Your task to perform on an android device: turn off improve location accuracy Image 0: 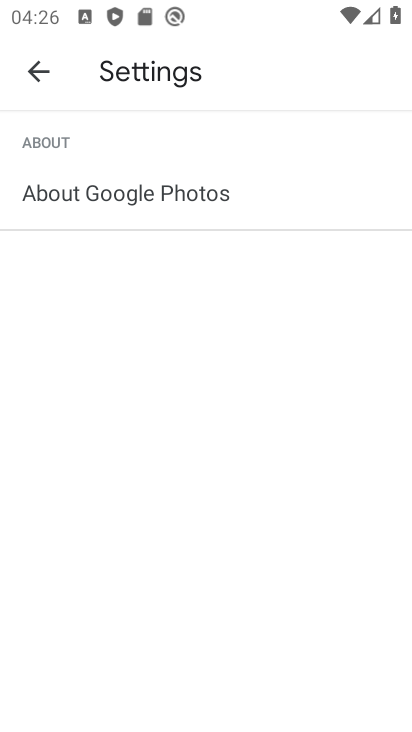
Step 0: press home button
Your task to perform on an android device: turn off improve location accuracy Image 1: 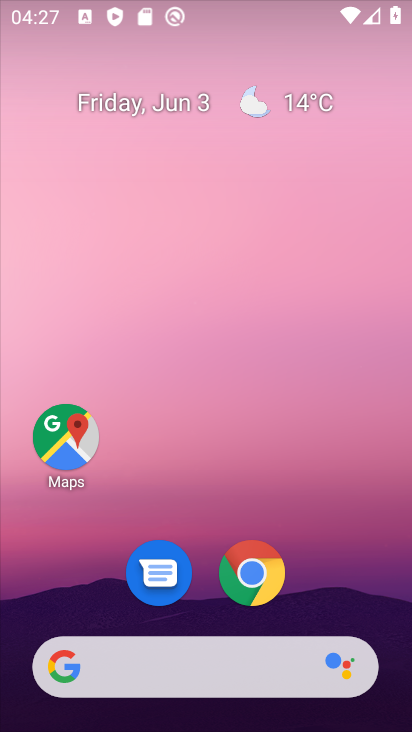
Step 1: drag from (155, 703) to (205, 104)
Your task to perform on an android device: turn off improve location accuracy Image 2: 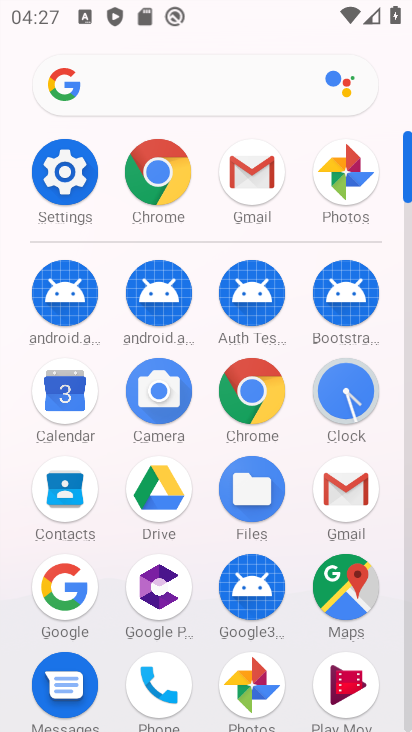
Step 2: click (62, 177)
Your task to perform on an android device: turn off improve location accuracy Image 3: 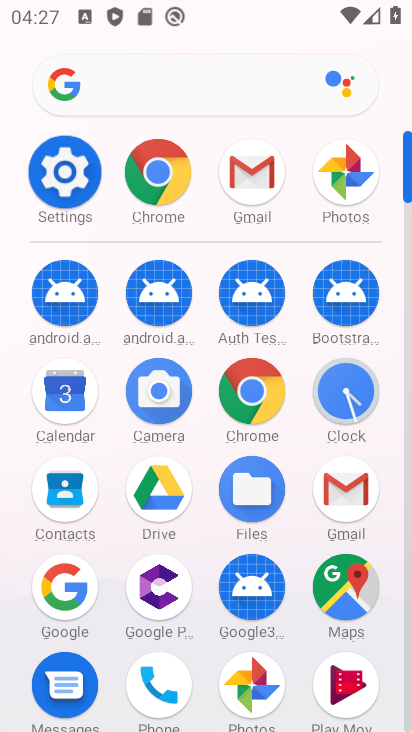
Step 3: click (67, 183)
Your task to perform on an android device: turn off improve location accuracy Image 4: 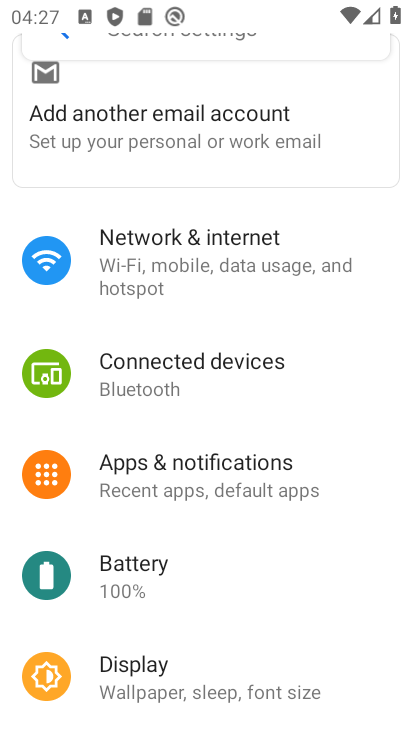
Step 4: drag from (207, 685) to (199, 136)
Your task to perform on an android device: turn off improve location accuracy Image 5: 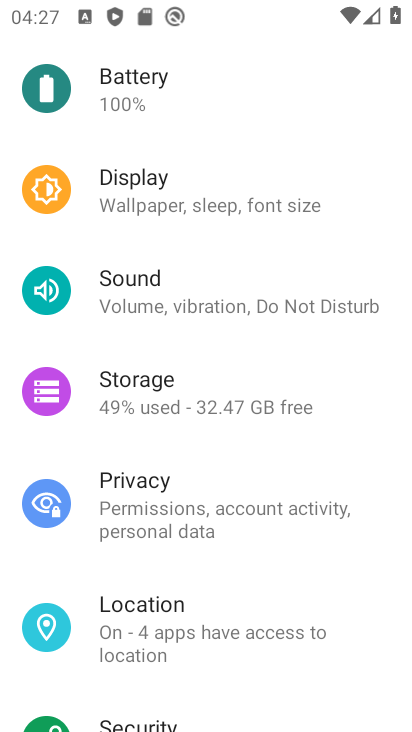
Step 5: click (220, 631)
Your task to perform on an android device: turn off improve location accuracy Image 6: 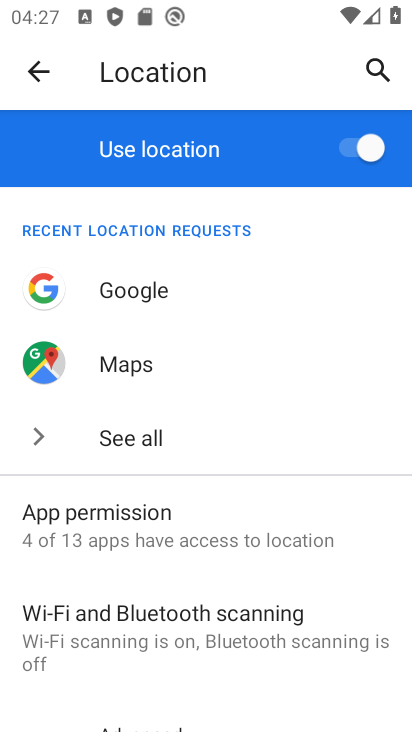
Step 6: drag from (131, 663) to (170, 169)
Your task to perform on an android device: turn off improve location accuracy Image 7: 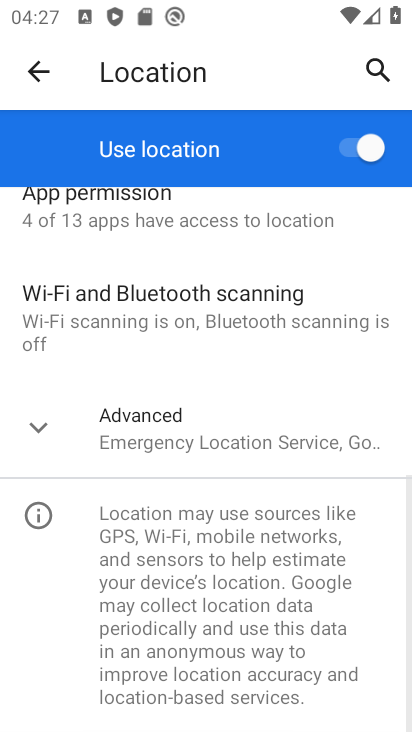
Step 7: click (212, 442)
Your task to perform on an android device: turn off improve location accuracy Image 8: 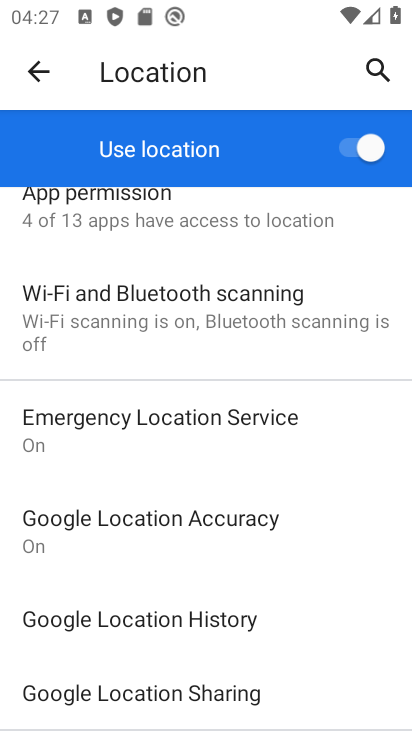
Step 8: click (246, 523)
Your task to perform on an android device: turn off improve location accuracy Image 9: 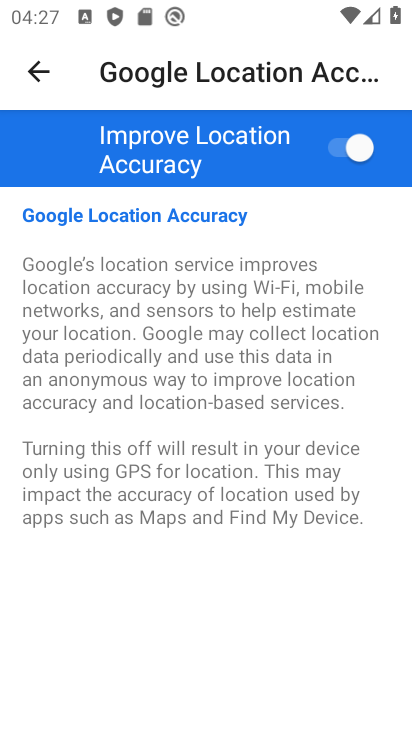
Step 9: click (349, 157)
Your task to perform on an android device: turn off improve location accuracy Image 10: 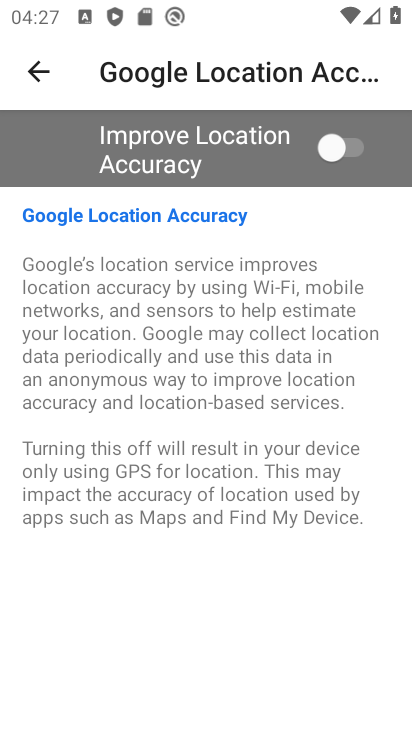
Step 10: task complete